Your task to perform on an android device: Search for the best selling coffee table on Crate & Barrel Image 0: 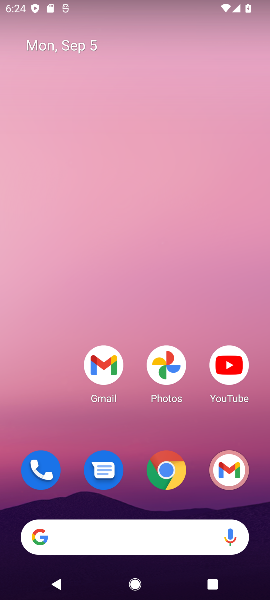
Step 0: click (115, 531)
Your task to perform on an android device: Search for the best selling coffee table on Crate & Barrel Image 1: 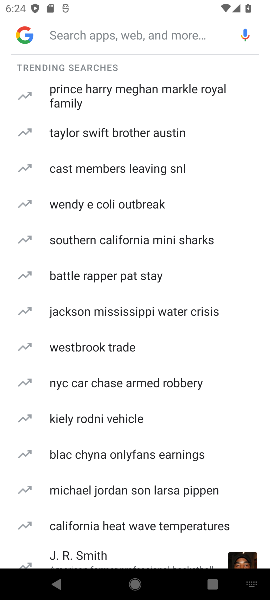
Step 1: type "crate & barrel"
Your task to perform on an android device: Search for the best selling coffee table on Crate & Barrel Image 2: 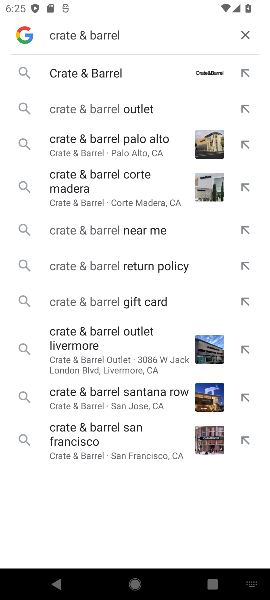
Step 2: click (111, 69)
Your task to perform on an android device: Search for the best selling coffee table on Crate & Barrel Image 3: 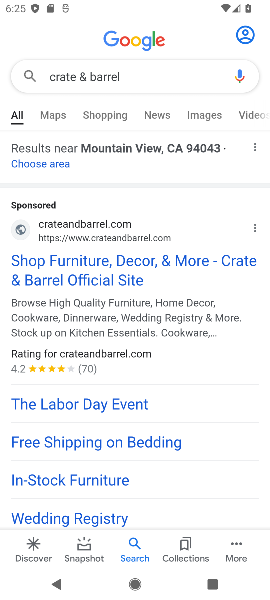
Step 3: click (86, 265)
Your task to perform on an android device: Search for the best selling coffee table on Crate & Barrel Image 4: 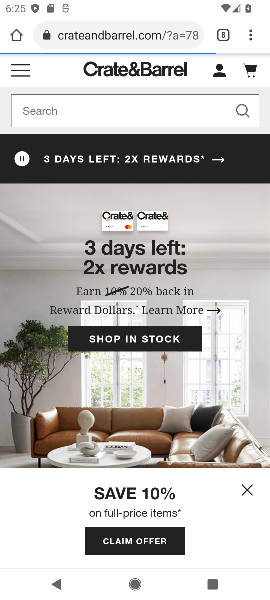
Step 4: click (81, 103)
Your task to perform on an android device: Search for the best selling coffee table on Crate & Barrel Image 5: 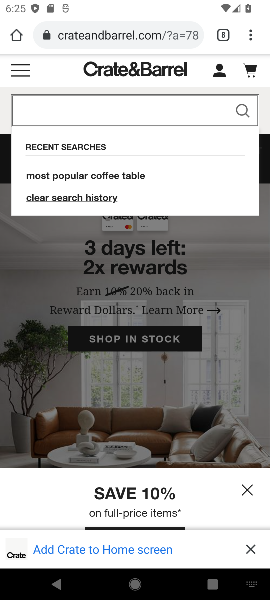
Step 5: type "best selling coffee table"
Your task to perform on an android device: Search for the best selling coffee table on Crate & Barrel Image 6: 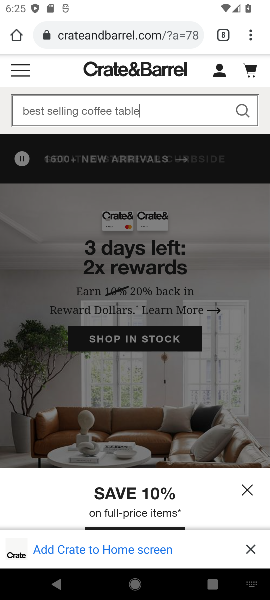
Step 6: click (238, 113)
Your task to perform on an android device: Search for the best selling coffee table on Crate & Barrel Image 7: 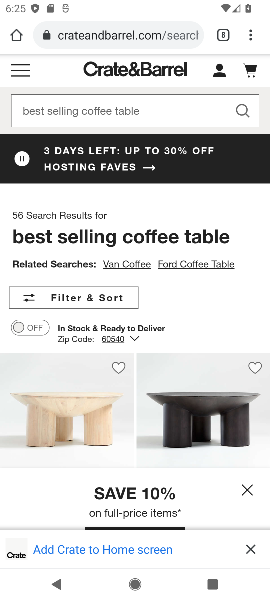
Step 7: task complete